Your task to perform on an android device: Check the weather Image 0: 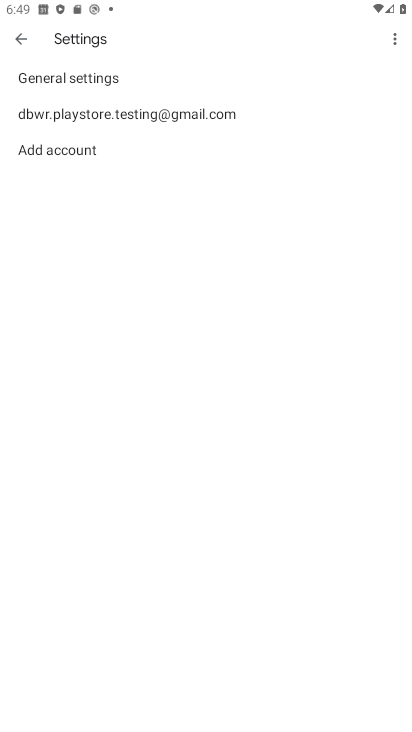
Step 0: press home button
Your task to perform on an android device: Check the weather Image 1: 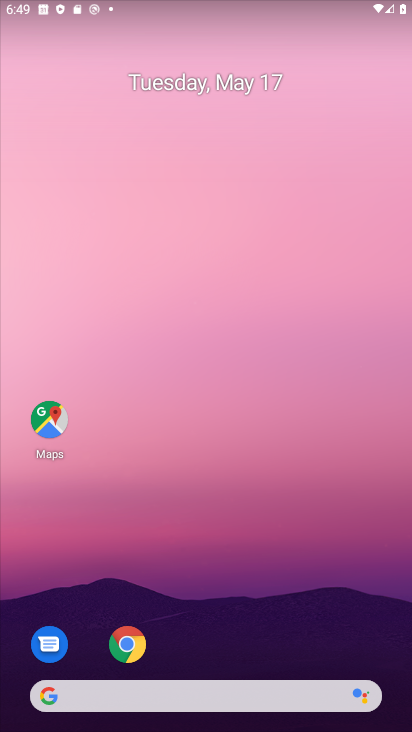
Step 1: drag from (368, 628) to (329, 292)
Your task to perform on an android device: Check the weather Image 2: 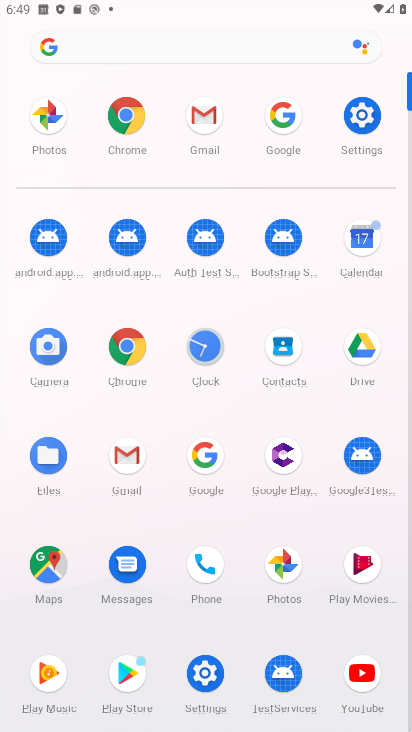
Step 2: click (200, 445)
Your task to perform on an android device: Check the weather Image 3: 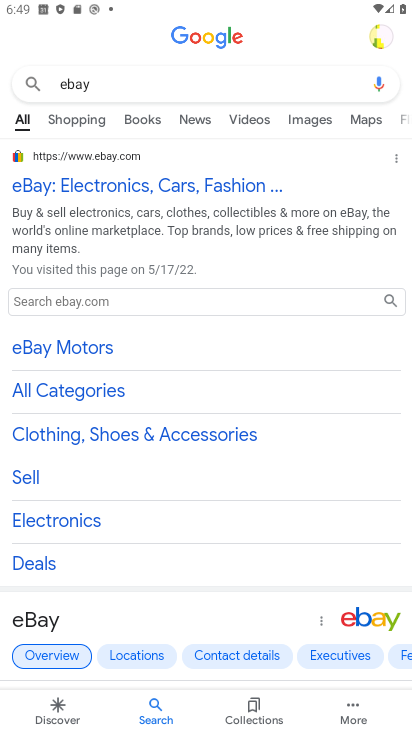
Step 3: press back button
Your task to perform on an android device: Check the weather Image 4: 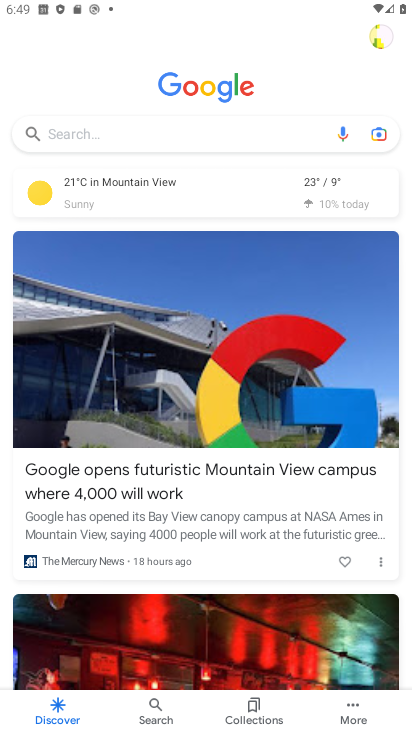
Step 4: click (161, 132)
Your task to perform on an android device: Check the weather Image 5: 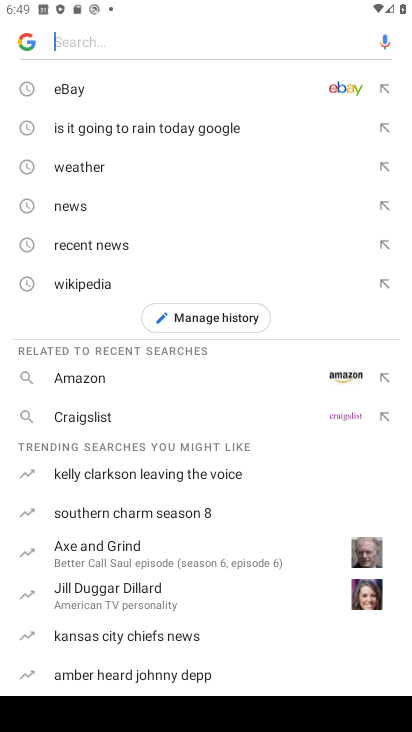
Step 5: click (104, 171)
Your task to perform on an android device: Check the weather Image 6: 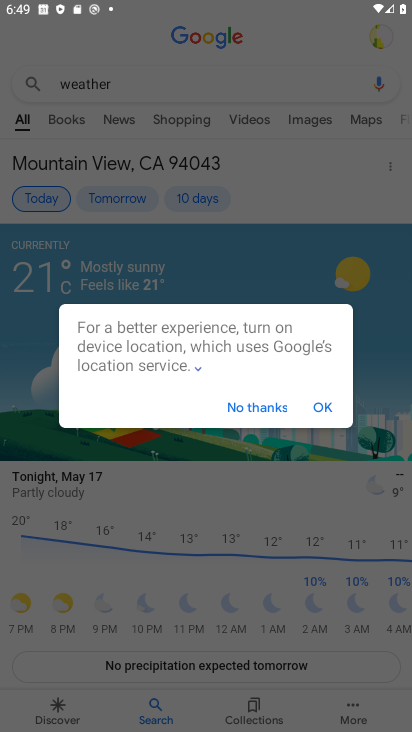
Step 6: click (244, 401)
Your task to perform on an android device: Check the weather Image 7: 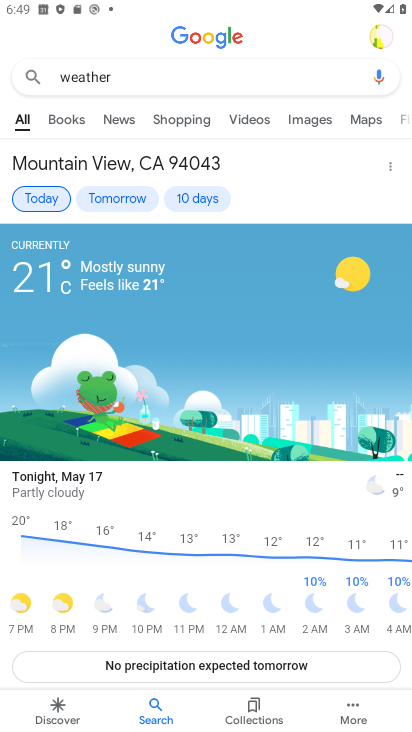
Step 7: task complete